Your task to perform on an android device: Search for seafood restaurants on Google Maps Image 0: 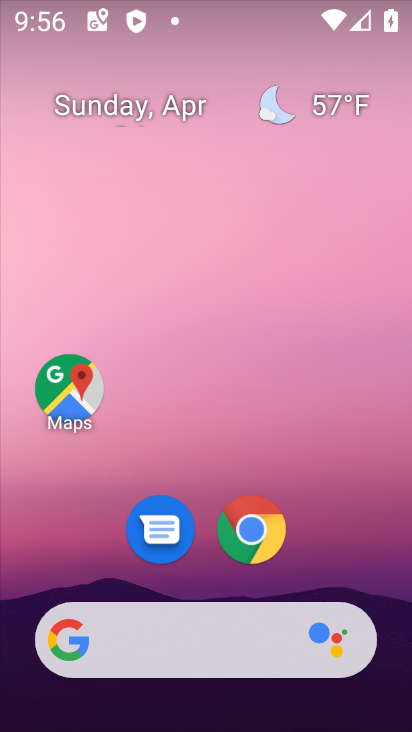
Step 0: click (62, 404)
Your task to perform on an android device: Search for seafood restaurants on Google Maps Image 1: 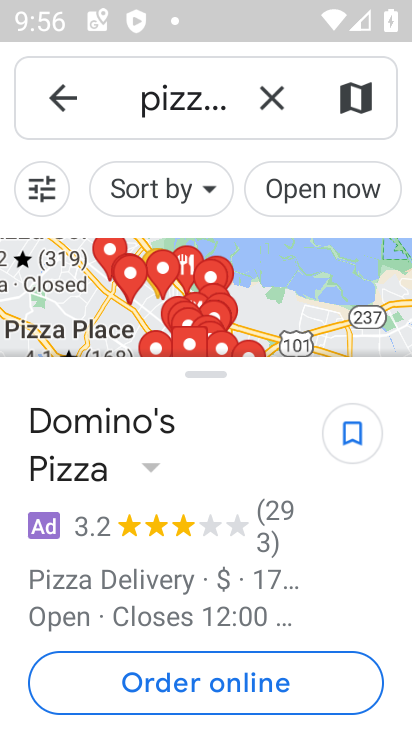
Step 1: click (273, 89)
Your task to perform on an android device: Search for seafood restaurants on Google Maps Image 2: 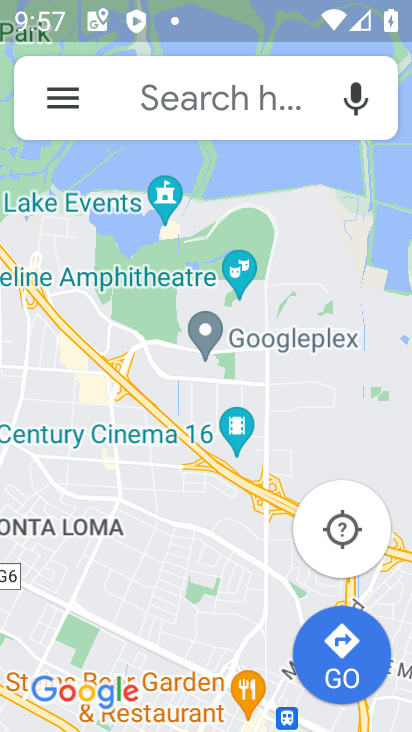
Step 2: click (183, 103)
Your task to perform on an android device: Search for seafood restaurants on Google Maps Image 3: 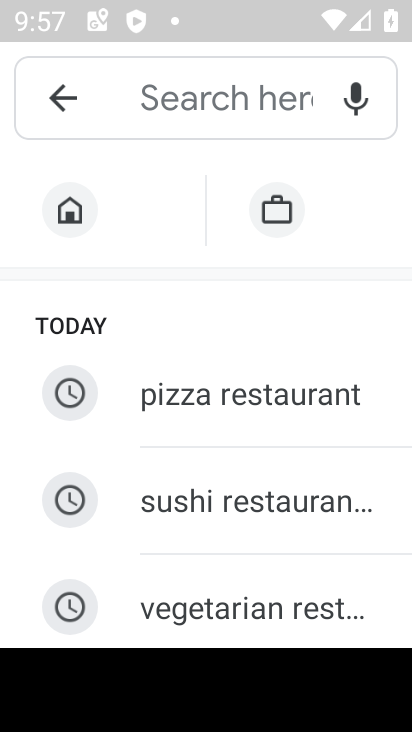
Step 3: drag from (276, 550) to (214, 192)
Your task to perform on an android device: Search for seafood restaurants on Google Maps Image 4: 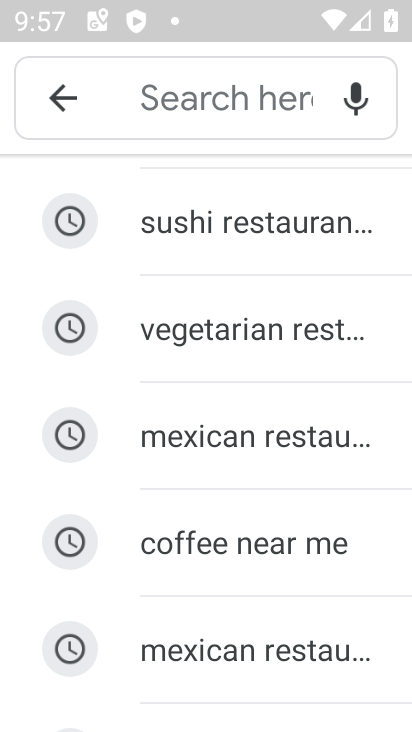
Step 4: drag from (223, 485) to (215, 192)
Your task to perform on an android device: Search for seafood restaurants on Google Maps Image 5: 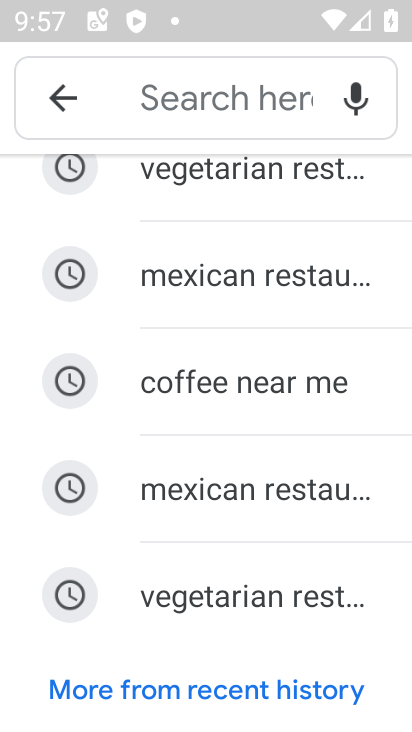
Step 5: click (234, 103)
Your task to perform on an android device: Search for seafood restaurants on Google Maps Image 6: 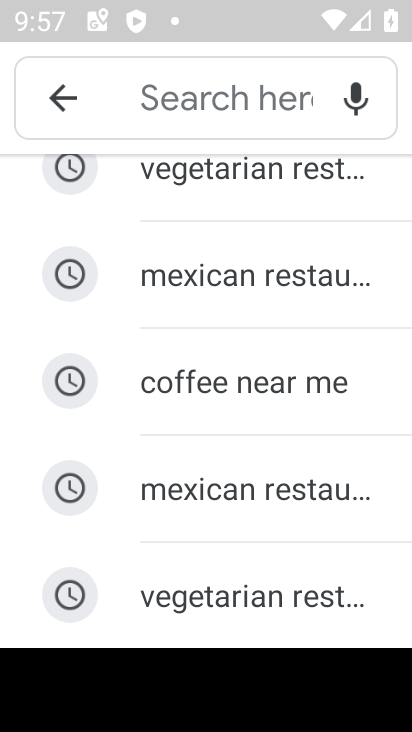
Step 6: type "seafood restaurants"
Your task to perform on an android device: Search for seafood restaurants on Google Maps Image 7: 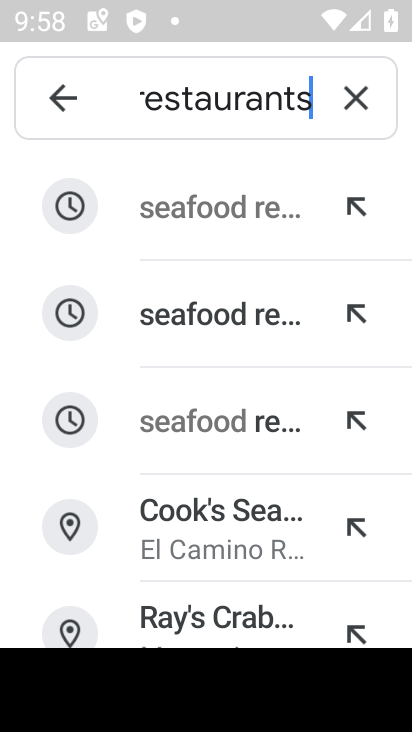
Step 7: click (205, 194)
Your task to perform on an android device: Search for seafood restaurants on Google Maps Image 8: 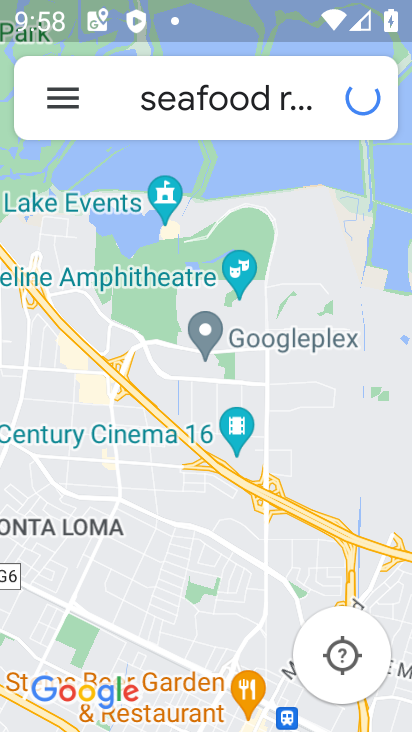
Step 8: task complete